Your task to perform on an android device: Open the calendar and show me this week's events? Image 0: 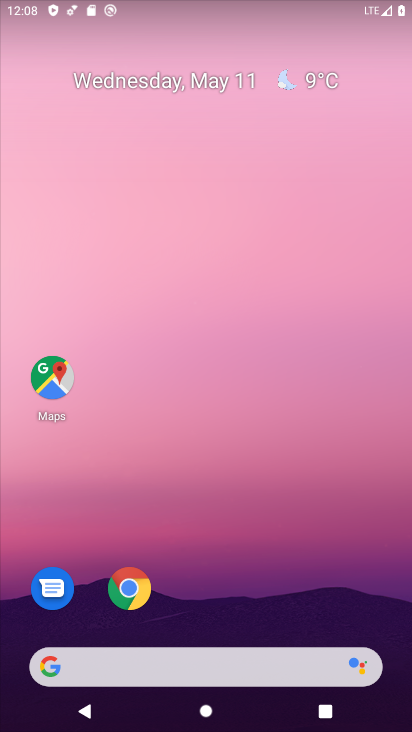
Step 0: drag from (337, 634) to (358, 36)
Your task to perform on an android device: Open the calendar and show me this week's events? Image 1: 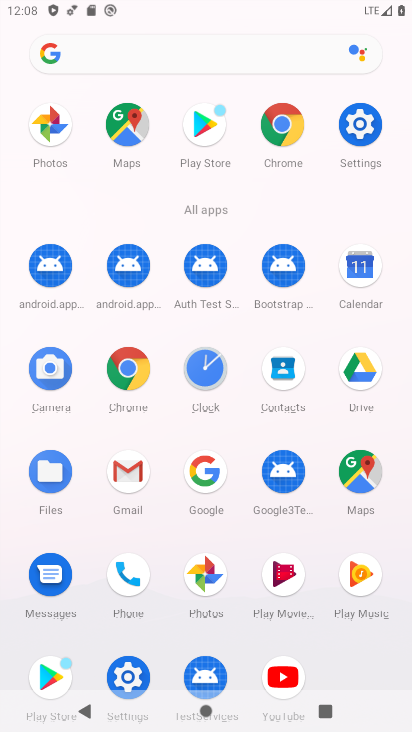
Step 1: click (364, 268)
Your task to perform on an android device: Open the calendar and show me this week's events? Image 2: 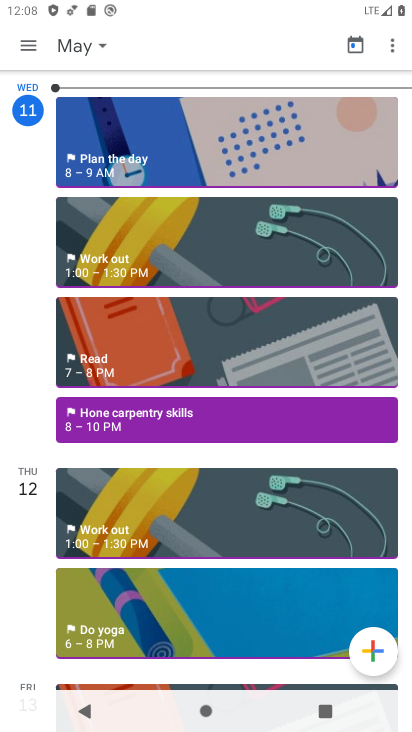
Step 2: click (30, 54)
Your task to perform on an android device: Open the calendar and show me this week's events? Image 3: 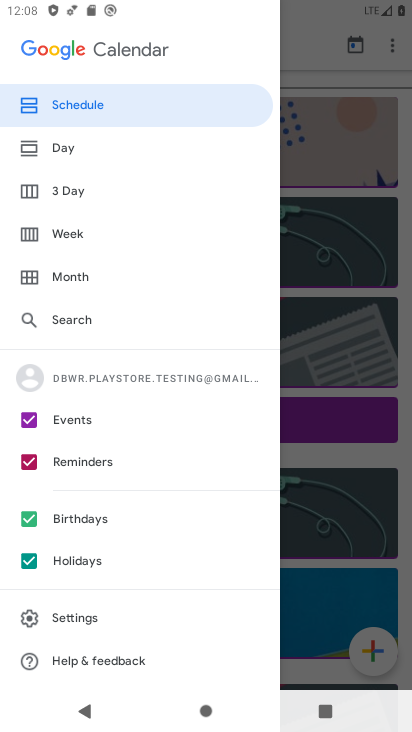
Step 3: click (20, 473)
Your task to perform on an android device: Open the calendar and show me this week's events? Image 4: 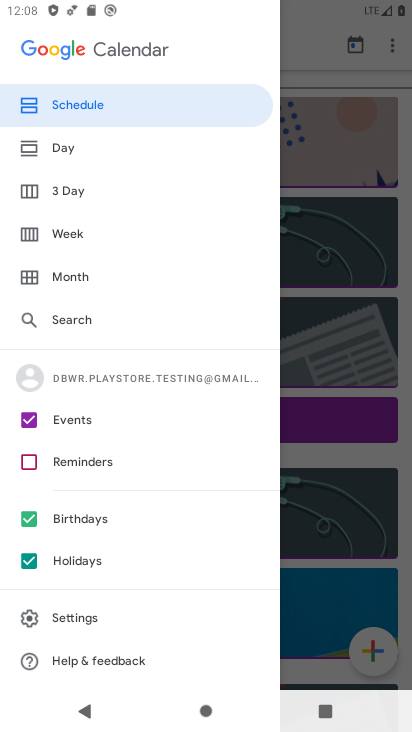
Step 4: click (27, 514)
Your task to perform on an android device: Open the calendar and show me this week's events? Image 5: 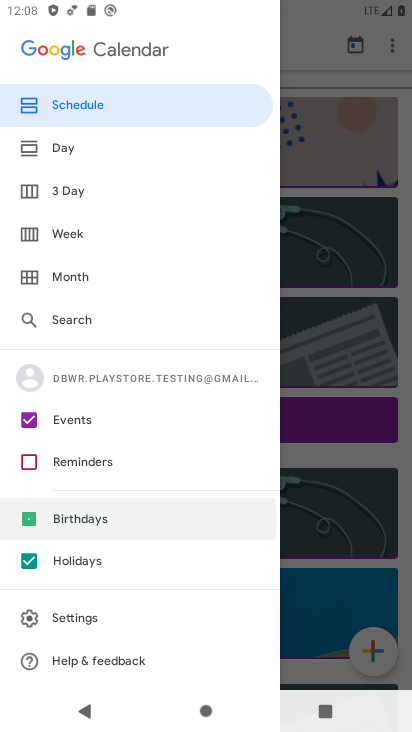
Step 5: click (30, 550)
Your task to perform on an android device: Open the calendar and show me this week's events? Image 6: 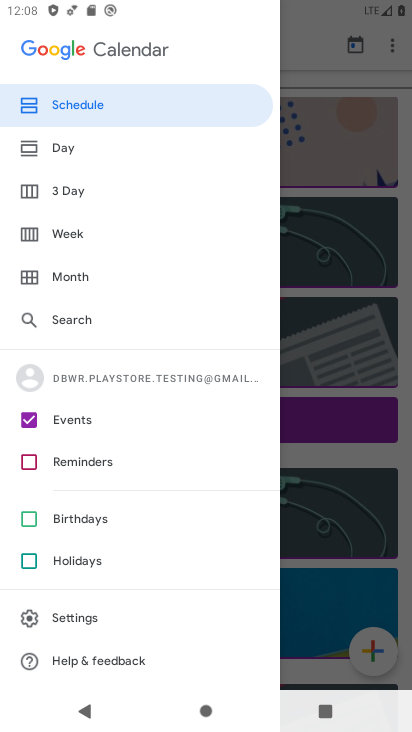
Step 6: click (26, 233)
Your task to perform on an android device: Open the calendar and show me this week's events? Image 7: 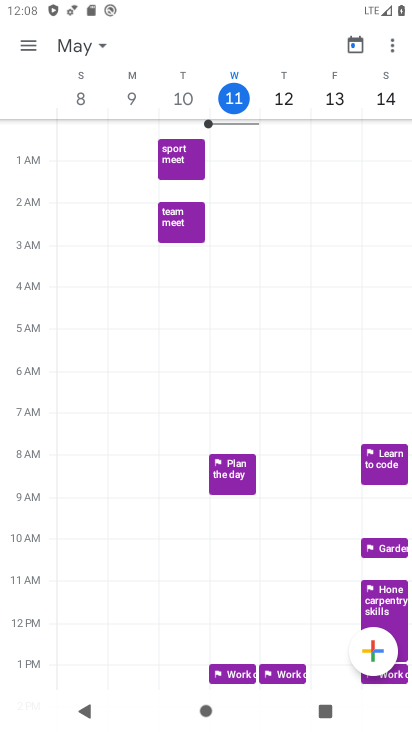
Step 7: task complete